Your task to perform on an android device: Open the phone app and click the voicemail tab. Image 0: 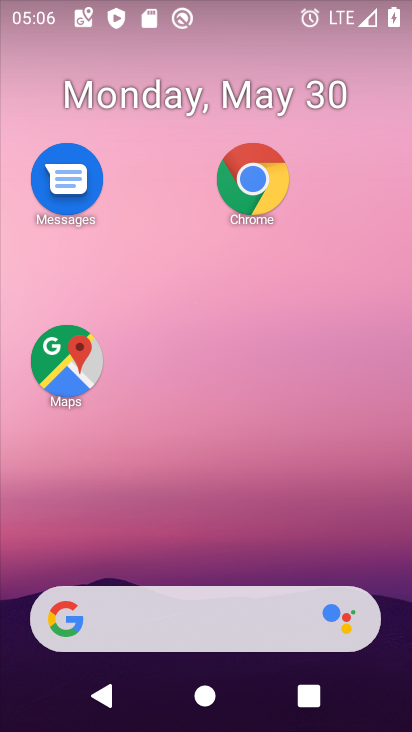
Step 0: drag from (237, 541) to (225, 34)
Your task to perform on an android device: Open the phone app and click the voicemail tab. Image 1: 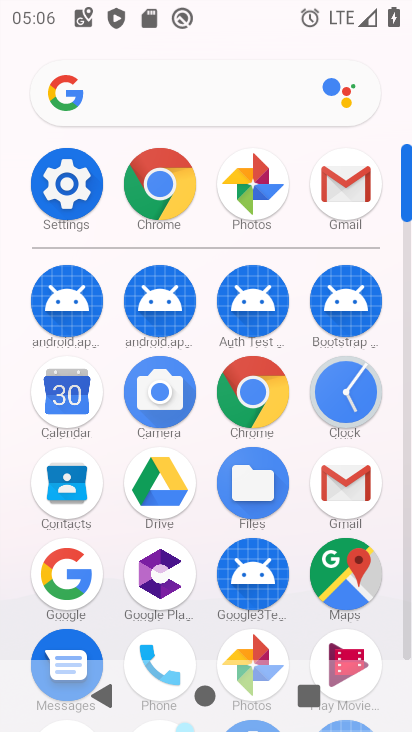
Step 1: click (151, 644)
Your task to perform on an android device: Open the phone app and click the voicemail tab. Image 2: 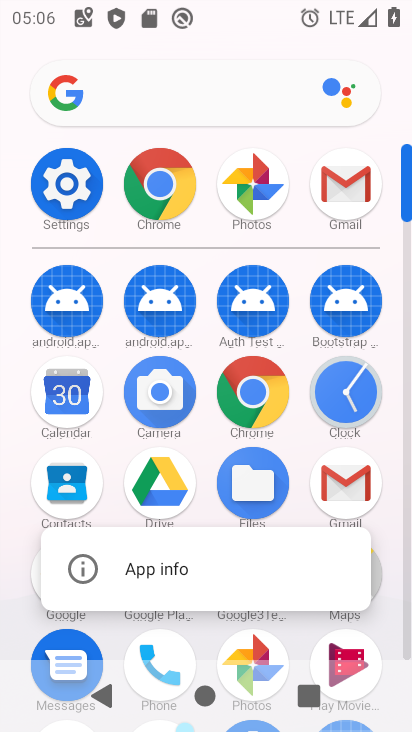
Step 2: click (151, 652)
Your task to perform on an android device: Open the phone app and click the voicemail tab. Image 3: 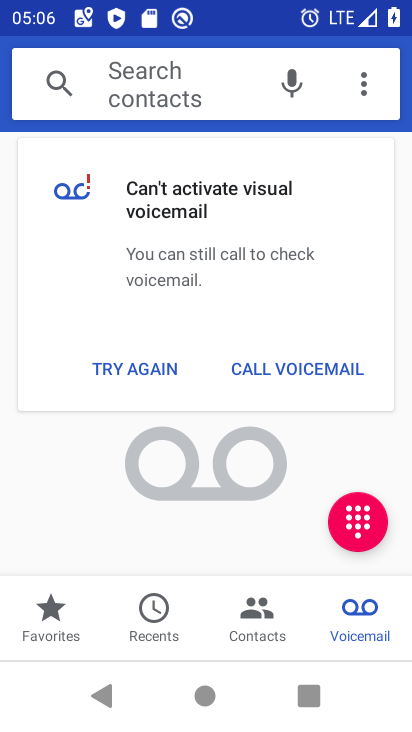
Step 3: click (363, 622)
Your task to perform on an android device: Open the phone app and click the voicemail tab. Image 4: 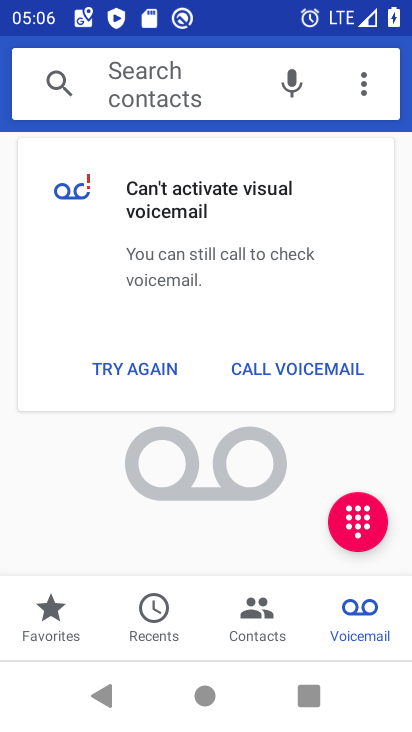
Step 4: task complete